Your task to perform on an android device: change notifications settings Image 0: 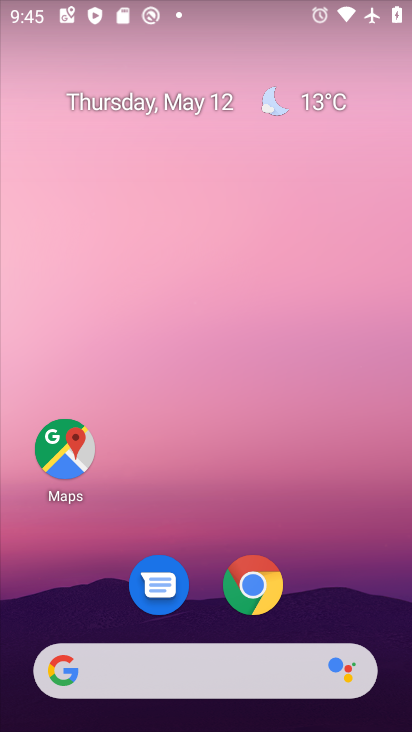
Step 0: drag from (218, 485) to (173, 22)
Your task to perform on an android device: change notifications settings Image 1: 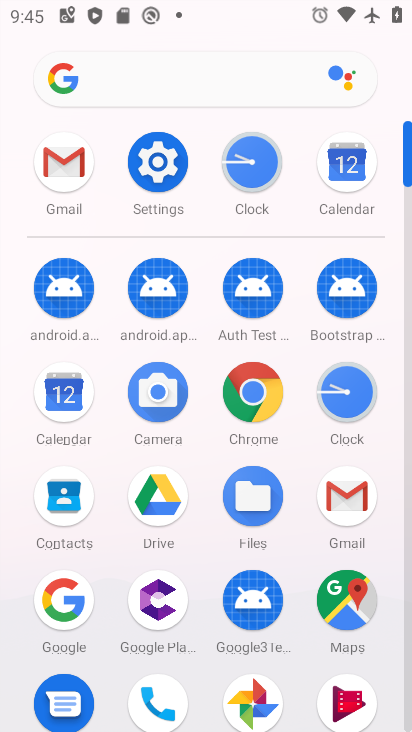
Step 1: click (161, 158)
Your task to perform on an android device: change notifications settings Image 2: 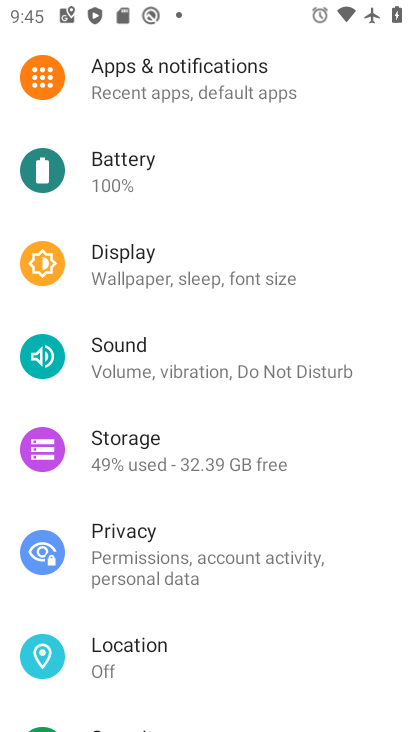
Step 2: click (245, 76)
Your task to perform on an android device: change notifications settings Image 3: 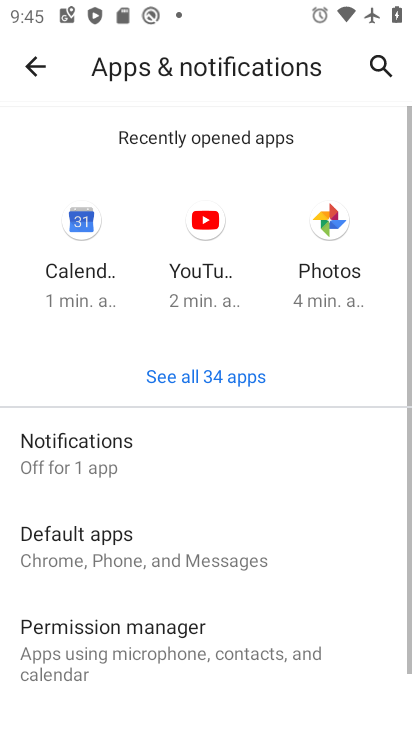
Step 3: click (120, 461)
Your task to perform on an android device: change notifications settings Image 4: 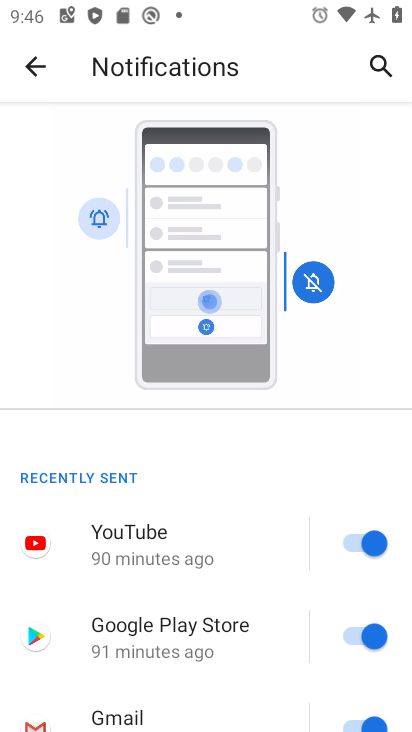
Step 4: drag from (219, 587) to (225, 171)
Your task to perform on an android device: change notifications settings Image 5: 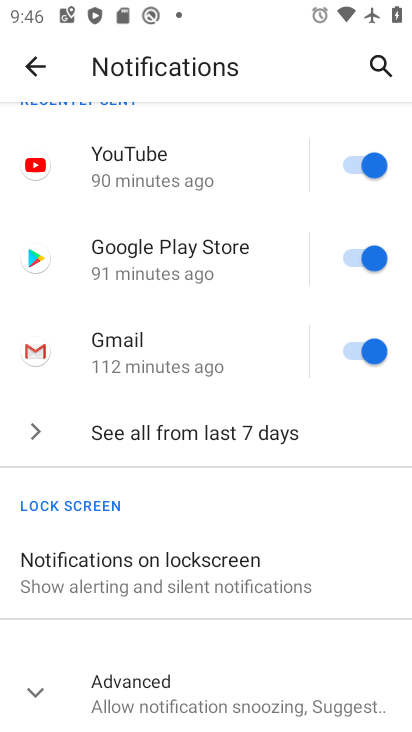
Step 5: click (237, 437)
Your task to perform on an android device: change notifications settings Image 6: 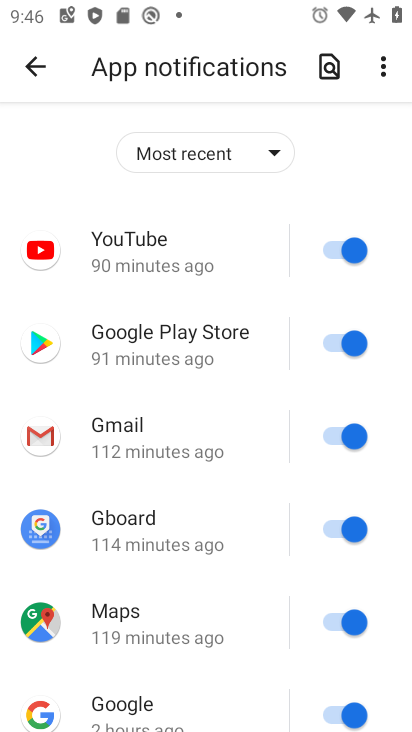
Step 6: click (324, 249)
Your task to perform on an android device: change notifications settings Image 7: 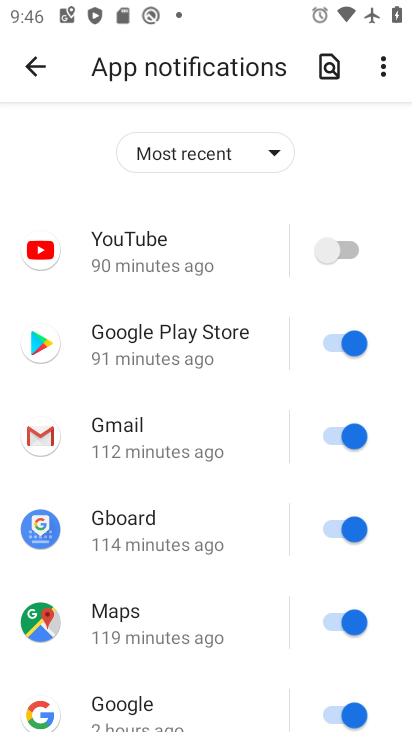
Step 7: click (341, 336)
Your task to perform on an android device: change notifications settings Image 8: 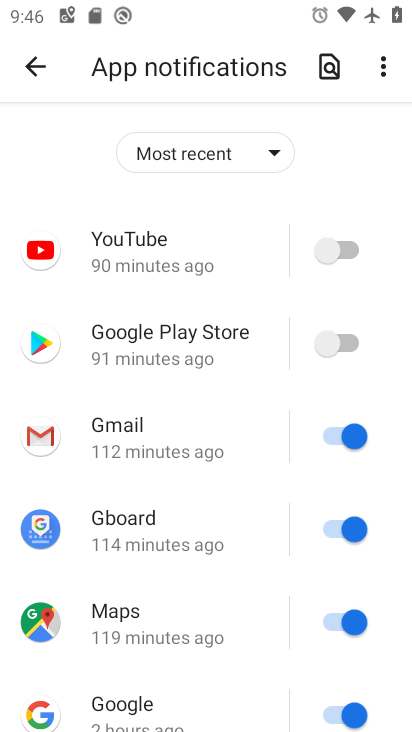
Step 8: click (340, 431)
Your task to perform on an android device: change notifications settings Image 9: 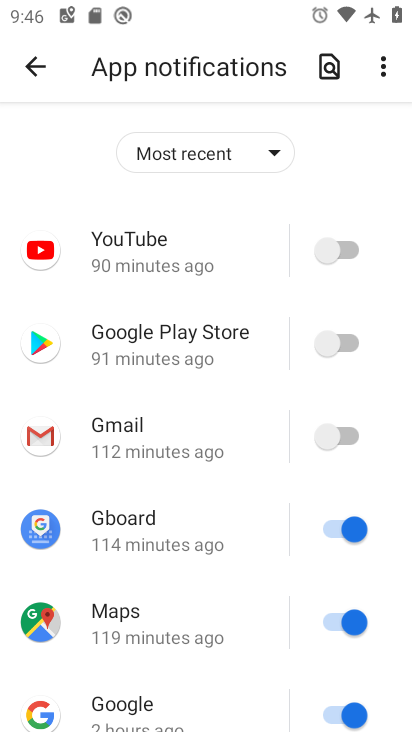
Step 9: click (343, 527)
Your task to perform on an android device: change notifications settings Image 10: 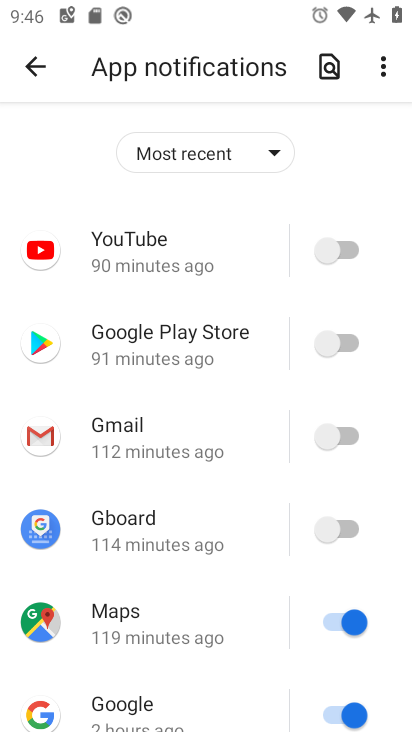
Step 10: click (338, 618)
Your task to perform on an android device: change notifications settings Image 11: 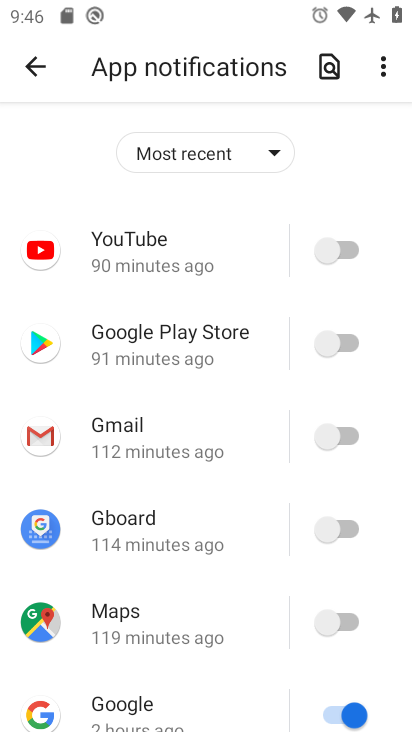
Step 11: click (338, 709)
Your task to perform on an android device: change notifications settings Image 12: 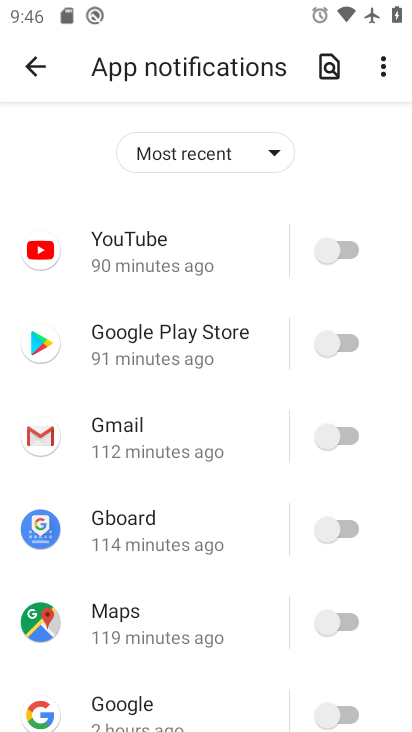
Step 12: drag from (228, 528) to (203, 83)
Your task to perform on an android device: change notifications settings Image 13: 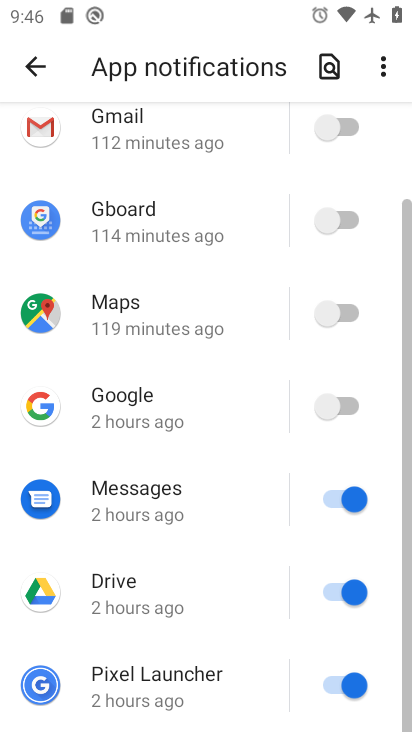
Step 13: drag from (235, 469) to (213, 253)
Your task to perform on an android device: change notifications settings Image 14: 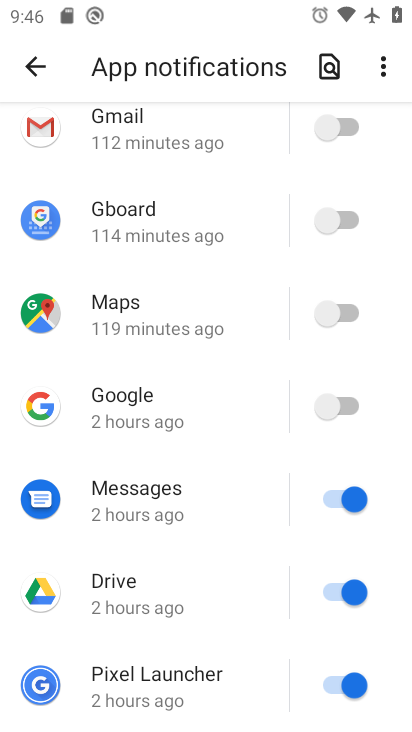
Step 14: click (342, 492)
Your task to perform on an android device: change notifications settings Image 15: 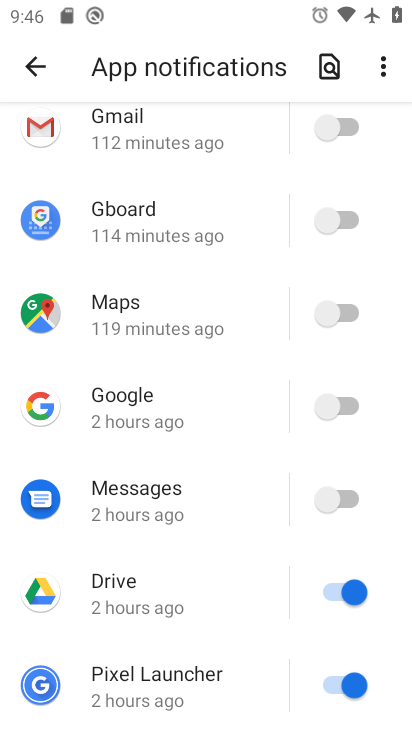
Step 15: click (347, 587)
Your task to perform on an android device: change notifications settings Image 16: 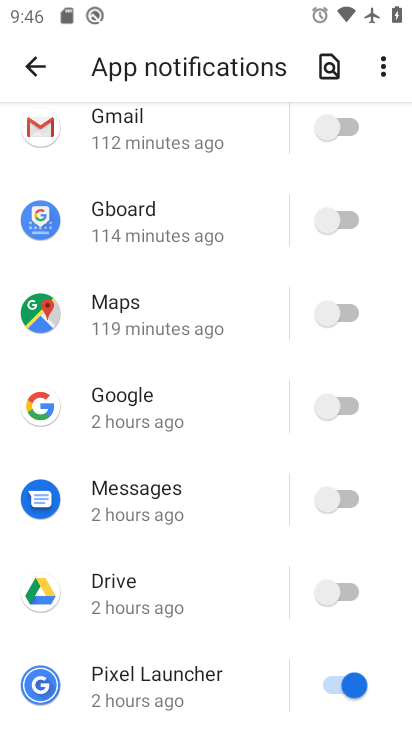
Step 16: click (341, 679)
Your task to perform on an android device: change notifications settings Image 17: 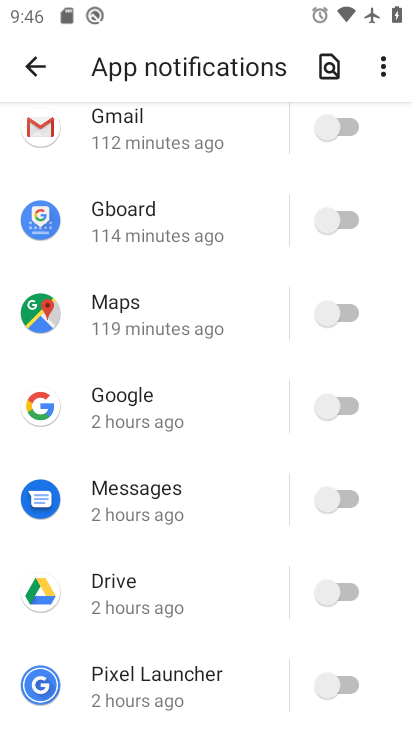
Step 17: task complete